Your task to perform on an android device: What's the weather today? Image 0: 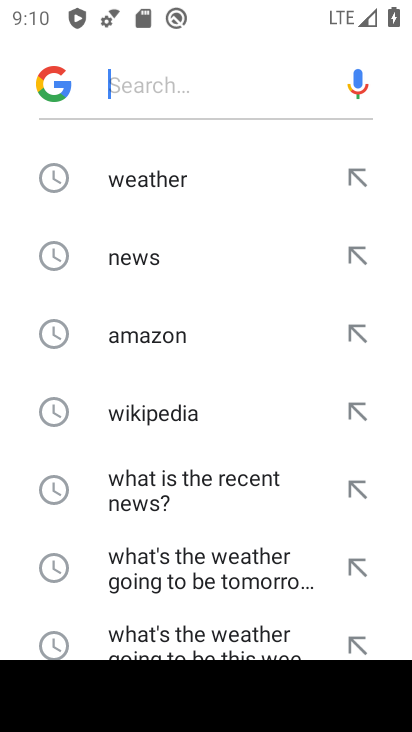
Step 0: click (222, 201)
Your task to perform on an android device: What's the weather today? Image 1: 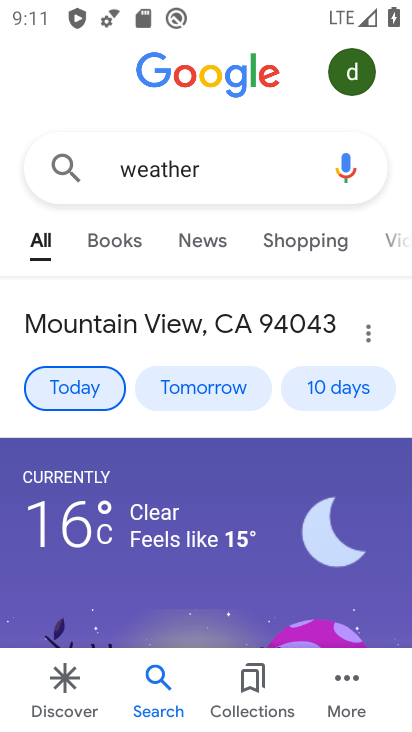
Step 1: task complete